Your task to perform on an android device: open wifi settings Image 0: 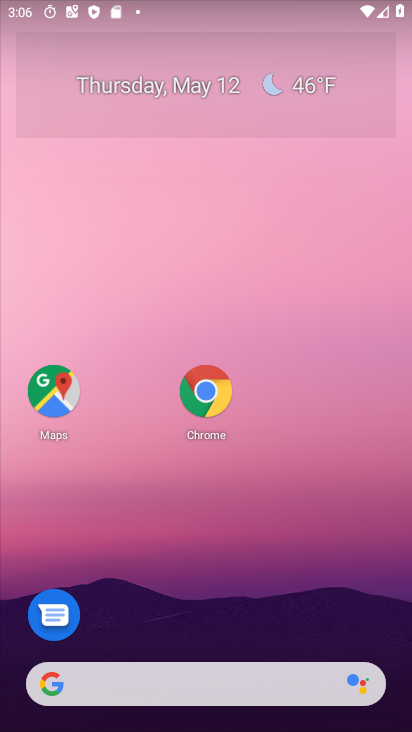
Step 0: drag from (189, 549) to (161, 73)
Your task to perform on an android device: open wifi settings Image 1: 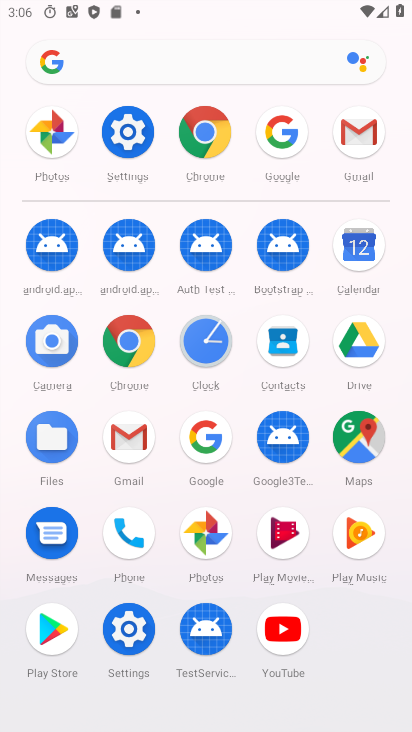
Step 1: click (128, 130)
Your task to perform on an android device: open wifi settings Image 2: 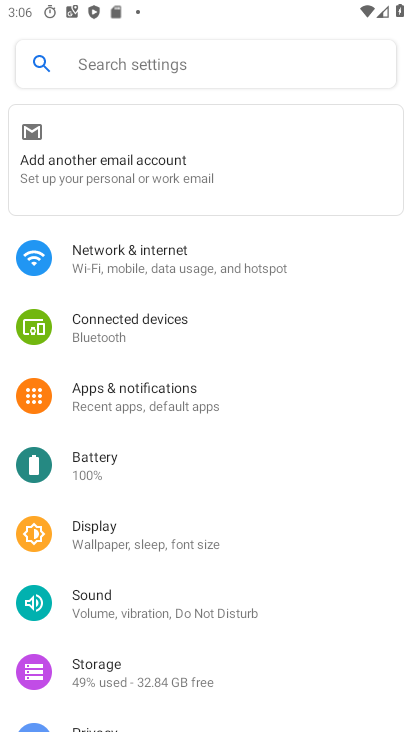
Step 2: click (147, 253)
Your task to perform on an android device: open wifi settings Image 3: 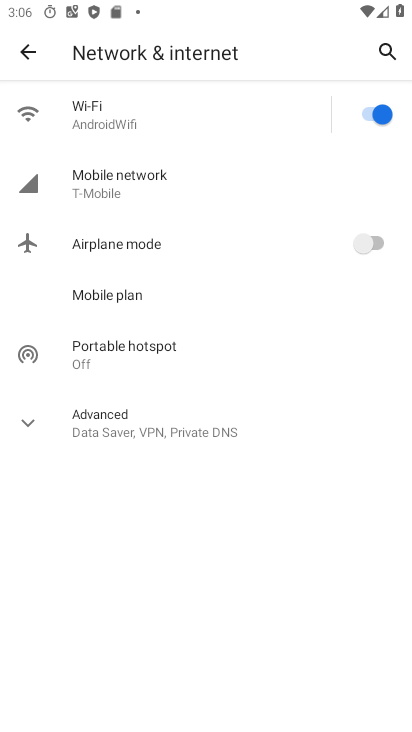
Step 3: click (121, 113)
Your task to perform on an android device: open wifi settings Image 4: 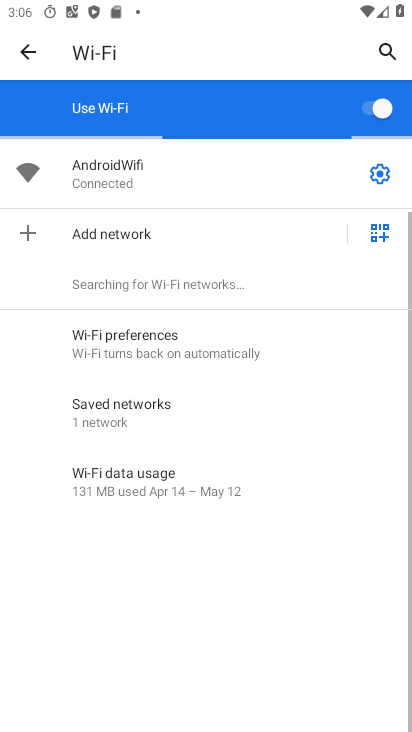
Step 4: click (310, 170)
Your task to perform on an android device: open wifi settings Image 5: 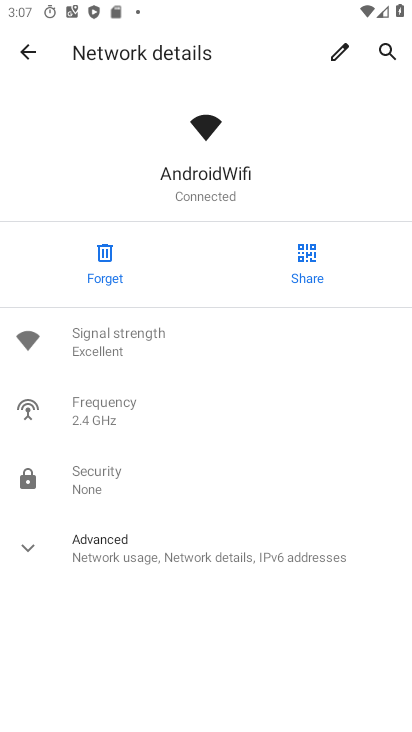
Step 5: task complete